Your task to perform on an android device: Open the calendar and show me this week's events Image 0: 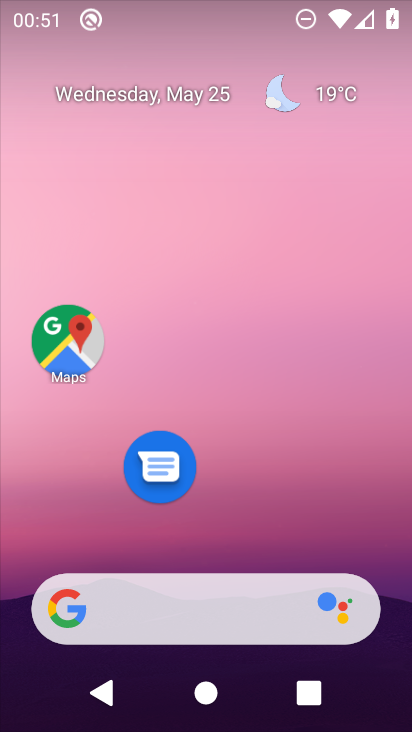
Step 0: drag from (204, 531) to (229, 293)
Your task to perform on an android device: Open the calendar and show me this week's events Image 1: 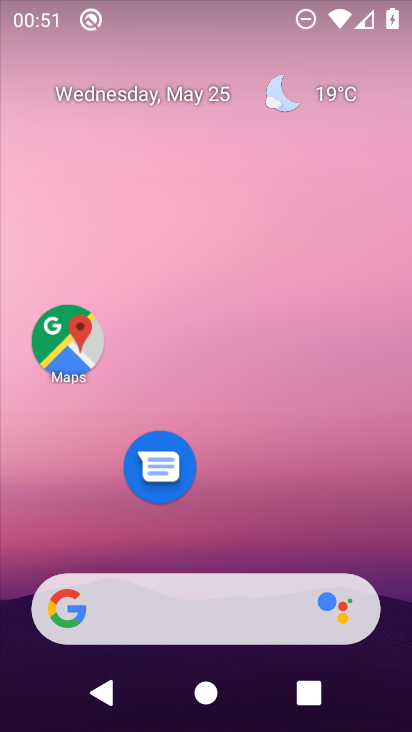
Step 1: drag from (246, 513) to (250, 331)
Your task to perform on an android device: Open the calendar and show me this week's events Image 2: 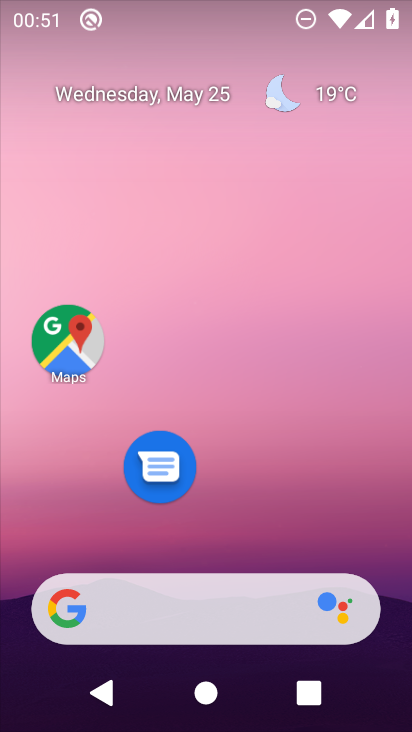
Step 2: drag from (234, 544) to (257, 198)
Your task to perform on an android device: Open the calendar and show me this week's events Image 3: 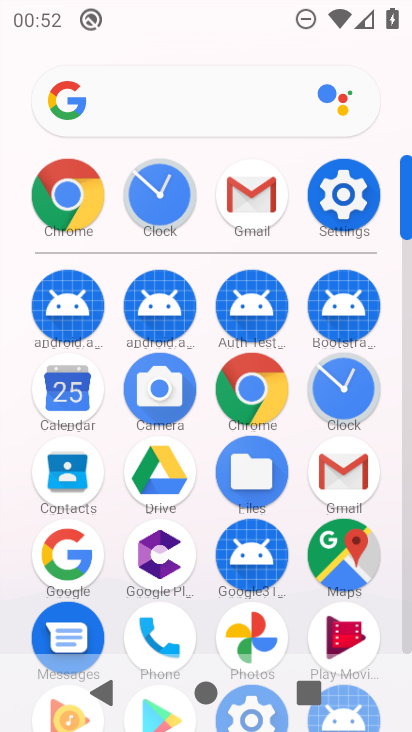
Step 3: click (85, 390)
Your task to perform on an android device: Open the calendar and show me this week's events Image 4: 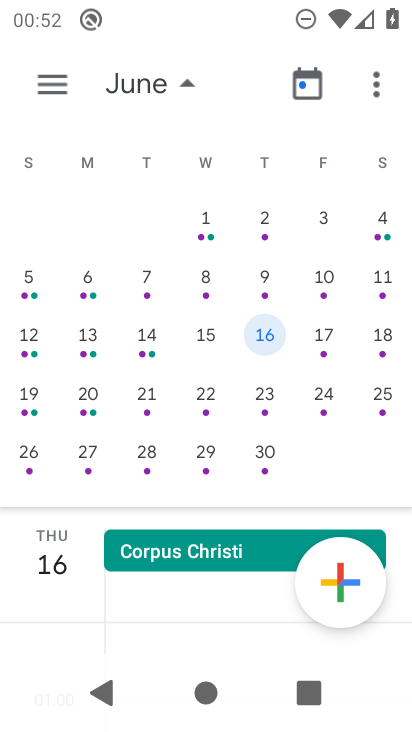
Step 4: drag from (27, 341) to (409, 288)
Your task to perform on an android device: Open the calendar and show me this week's events Image 5: 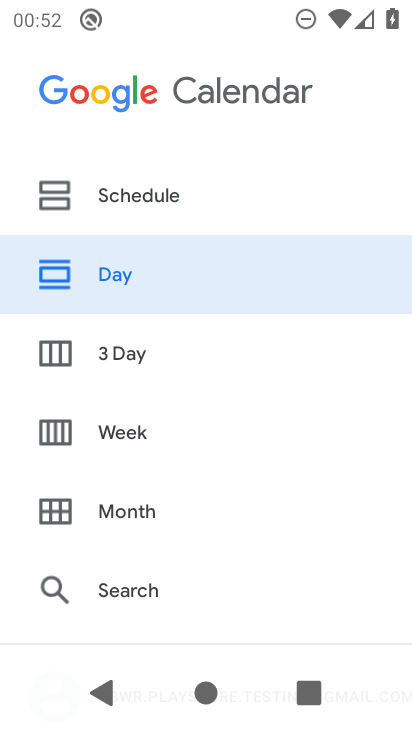
Step 5: press back button
Your task to perform on an android device: Open the calendar and show me this week's events Image 6: 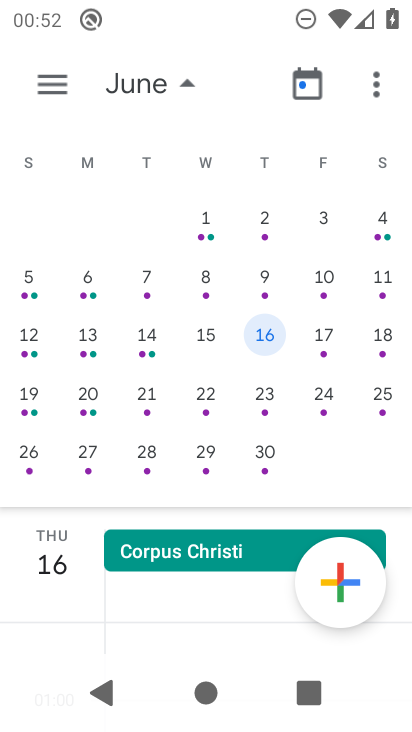
Step 6: drag from (70, 316) to (403, 254)
Your task to perform on an android device: Open the calendar and show me this week's events Image 7: 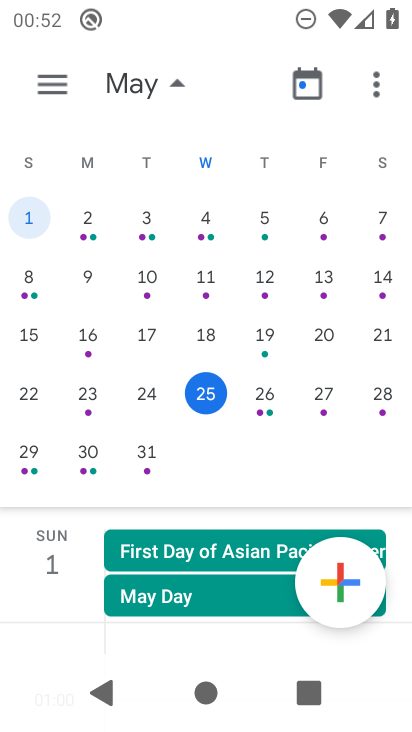
Step 7: click (335, 390)
Your task to perform on an android device: Open the calendar and show me this week's events Image 8: 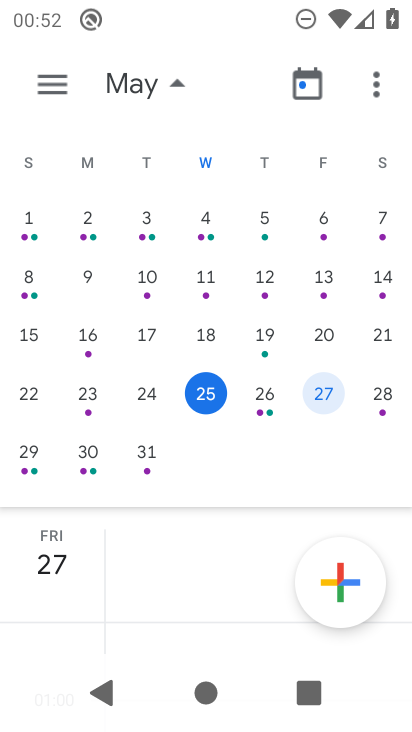
Step 8: task complete